Your task to perform on an android device: Open the map Image 0: 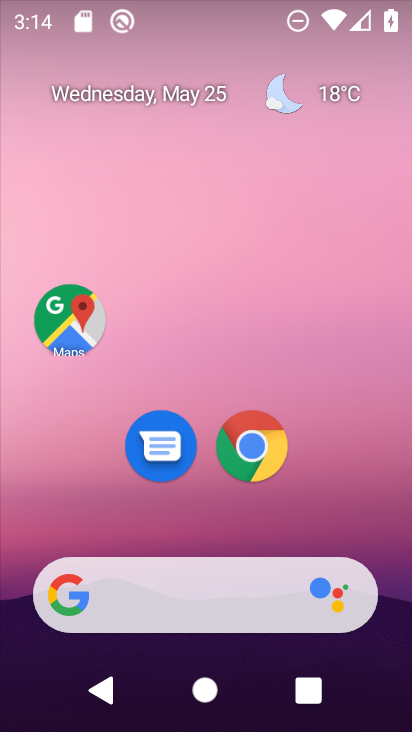
Step 0: drag from (193, 587) to (263, 251)
Your task to perform on an android device: Open the map Image 1: 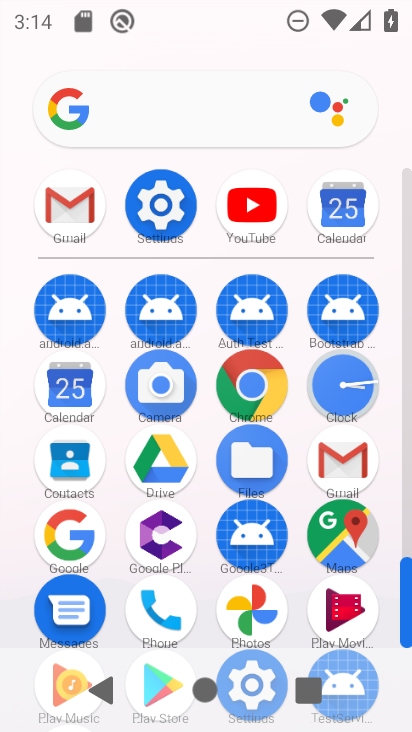
Step 1: click (337, 531)
Your task to perform on an android device: Open the map Image 2: 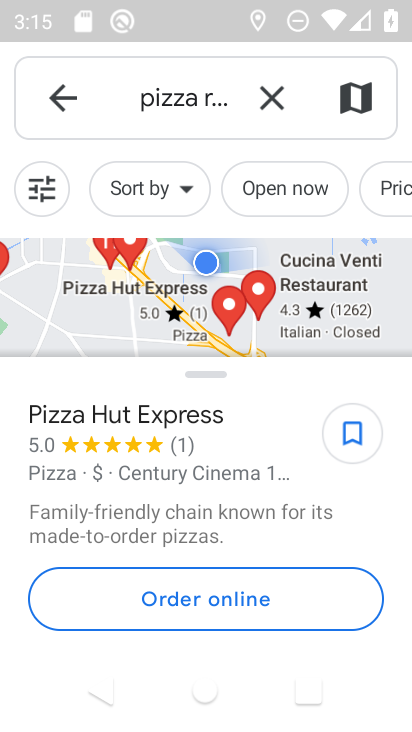
Step 2: task complete